Your task to perform on an android device: turn on notifications settings in the gmail app Image 0: 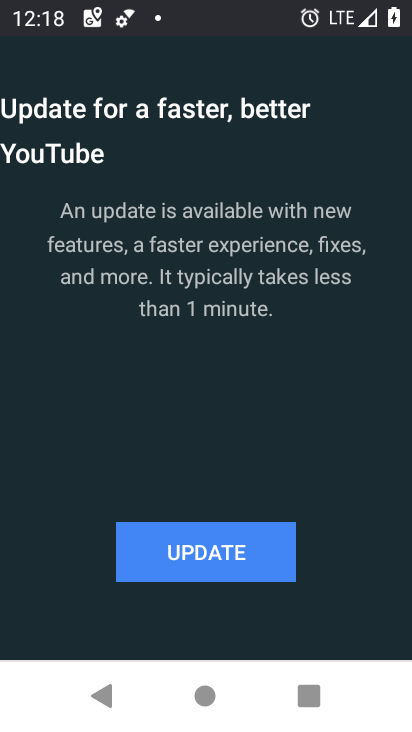
Step 0: press home button
Your task to perform on an android device: turn on notifications settings in the gmail app Image 1: 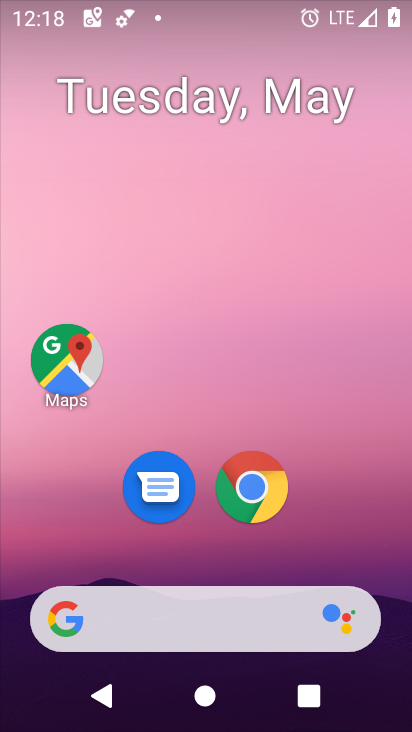
Step 1: drag from (131, 335) to (247, 104)
Your task to perform on an android device: turn on notifications settings in the gmail app Image 2: 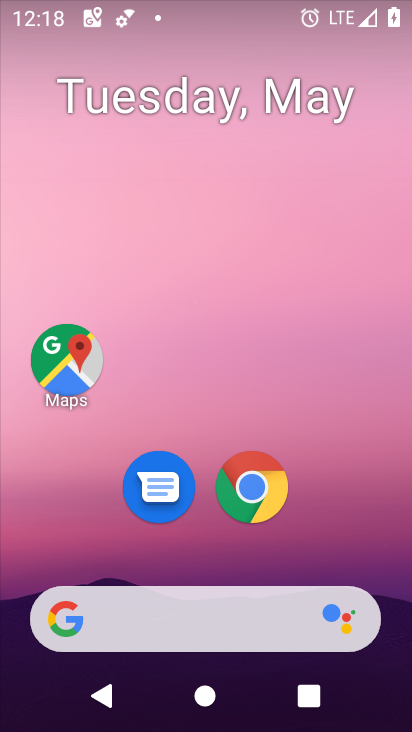
Step 2: drag from (40, 444) to (166, 171)
Your task to perform on an android device: turn on notifications settings in the gmail app Image 3: 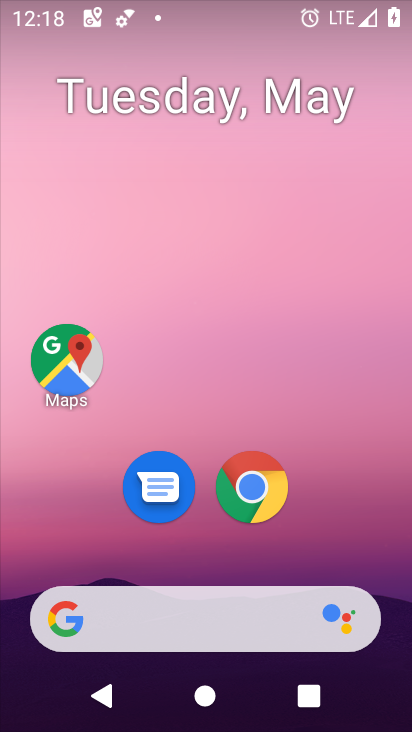
Step 3: drag from (52, 497) to (260, 134)
Your task to perform on an android device: turn on notifications settings in the gmail app Image 4: 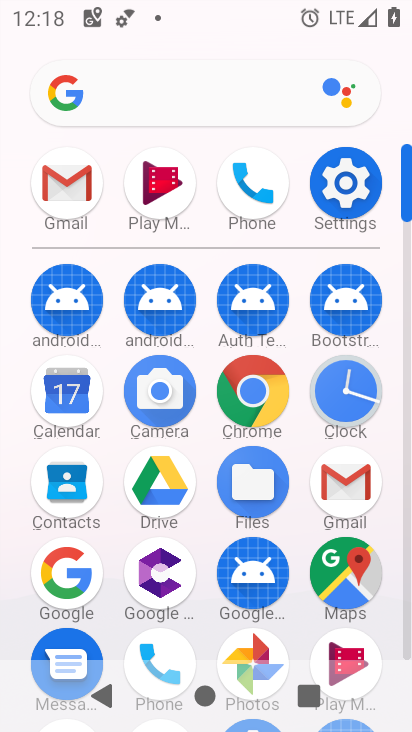
Step 4: click (345, 501)
Your task to perform on an android device: turn on notifications settings in the gmail app Image 5: 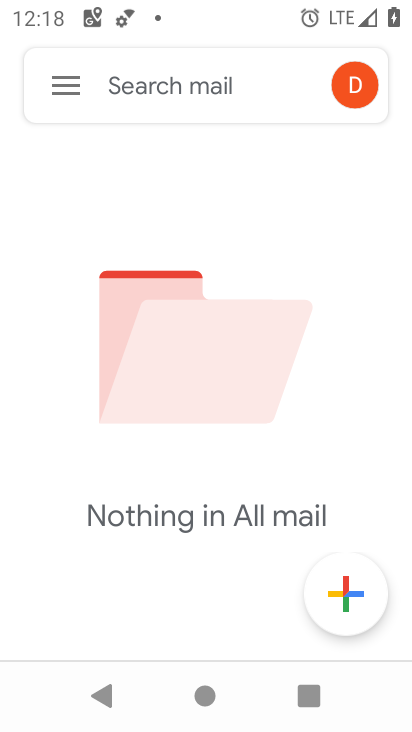
Step 5: click (60, 85)
Your task to perform on an android device: turn on notifications settings in the gmail app Image 6: 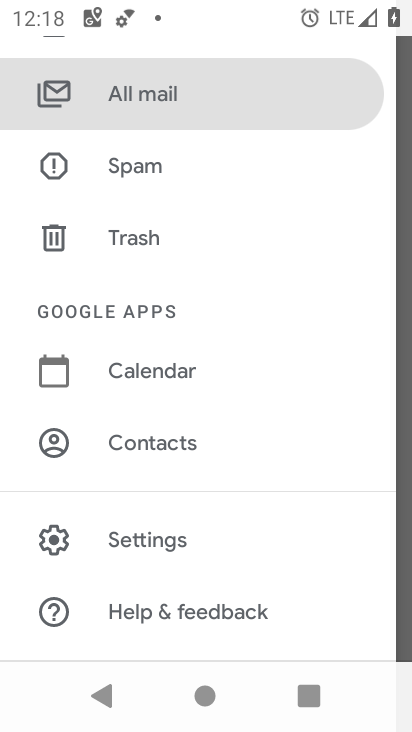
Step 6: click (91, 525)
Your task to perform on an android device: turn on notifications settings in the gmail app Image 7: 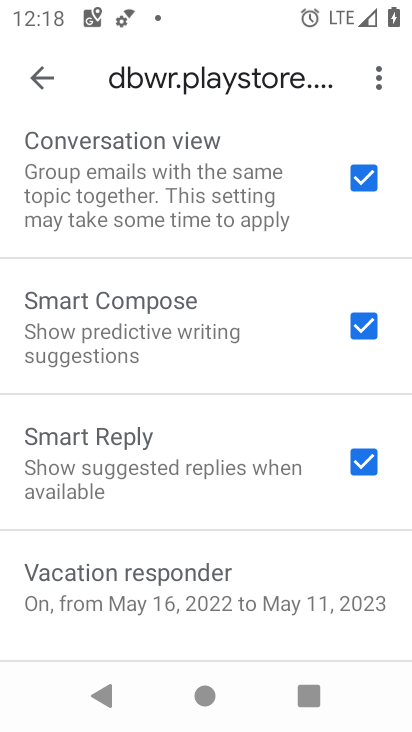
Step 7: click (53, 82)
Your task to perform on an android device: turn on notifications settings in the gmail app Image 8: 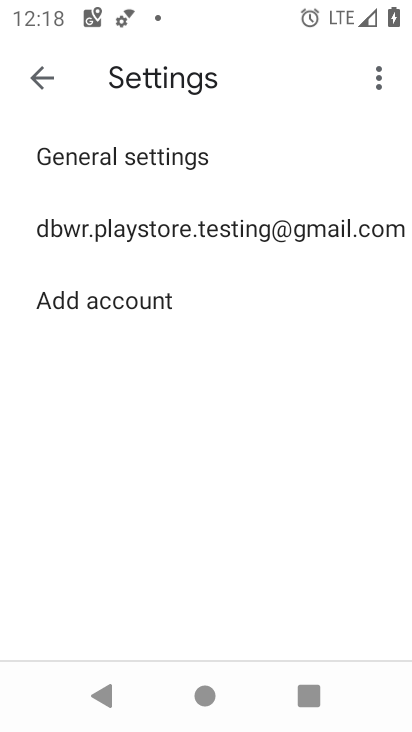
Step 8: click (217, 240)
Your task to perform on an android device: turn on notifications settings in the gmail app Image 9: 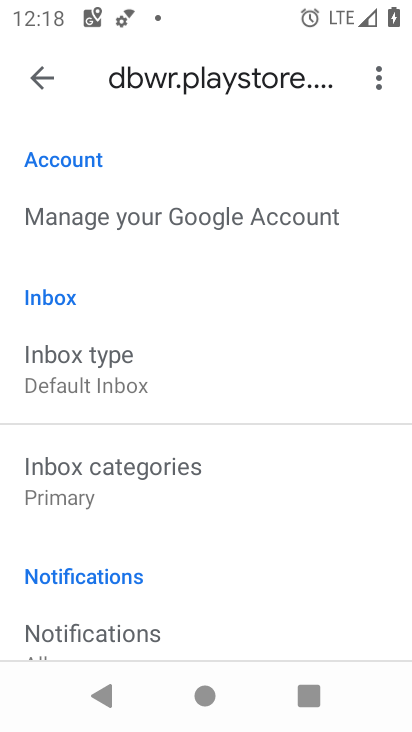
Step 9: drag from (56, 624) to (264, 198)
Your task to perform on an android device: turn on notifications settings in the gmail app Image 10: 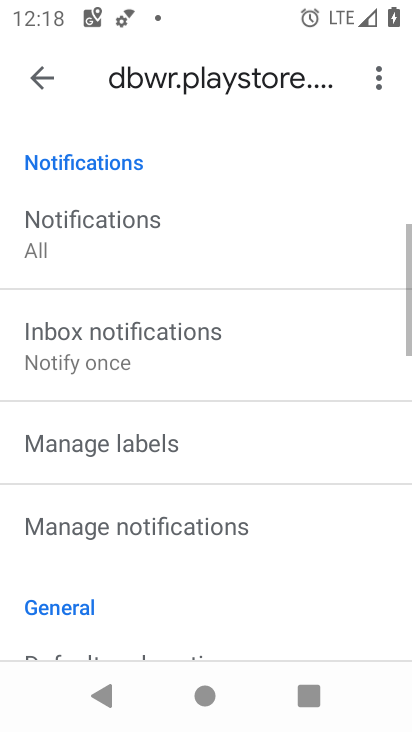
Step 10: click (110, 540)
Your task to perform on an android device: turn on notifications settings in the gmail app Image 11: 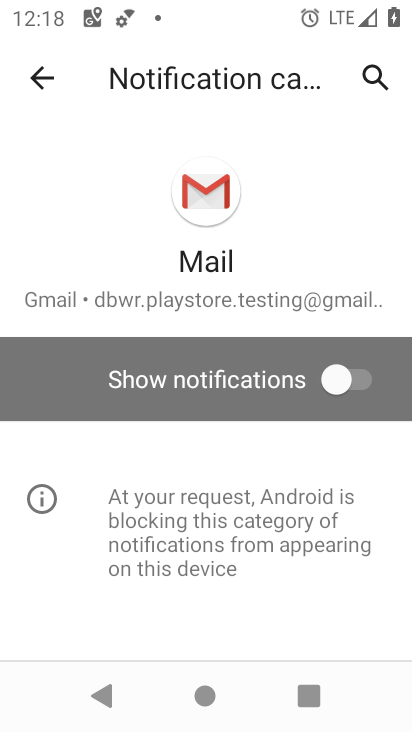
Step 11: click (346, 384)
Your task to perform on an android device: turn on notifications settings in the gmail app Image 12: 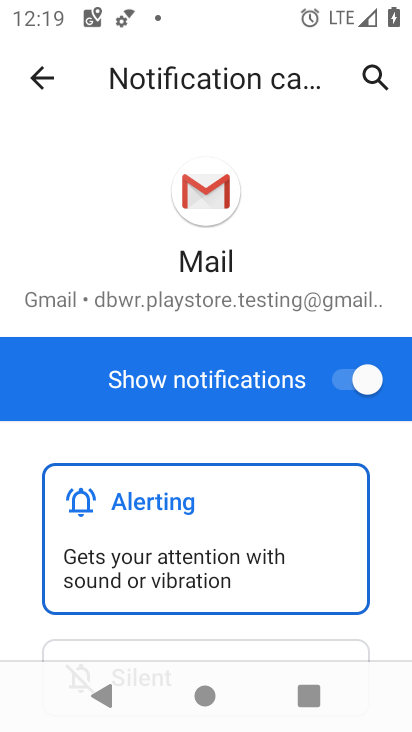
Step 12: task complete